Your task to perform on an android device: uninstall "Google Keep" Image 0: 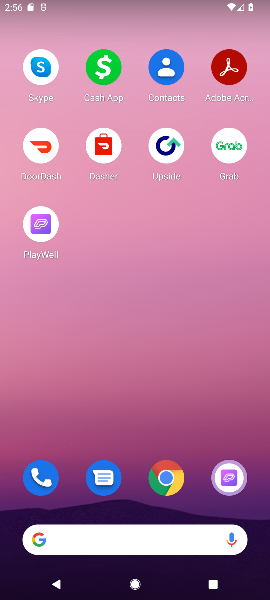
Step 0: press home button
Your task to perform on an android device: uninstall "Google Keep" Image 1: 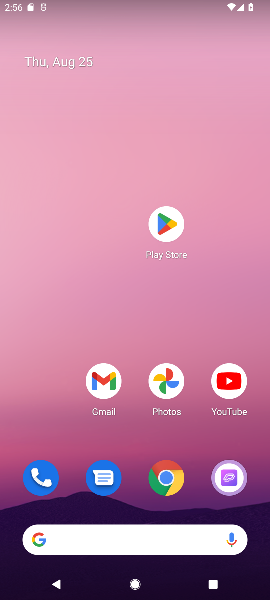
Step 1: click (165, 218)
Your task to perform on an android device: uninstall "Google Keep" Image 2: 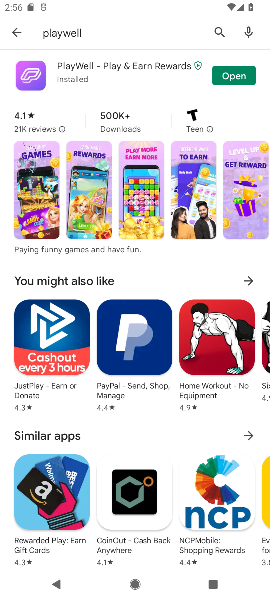
Step 2: click (218, 30)
Your task to perform on an android device: uninstall "Google Keep" Image 3: 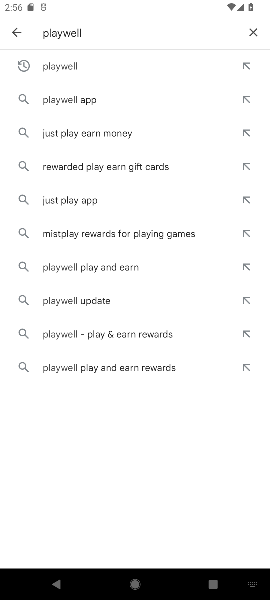
Step 3: click (252, 28)
Your task to perform on an android device: uninstall "Google Keep" Image 4: 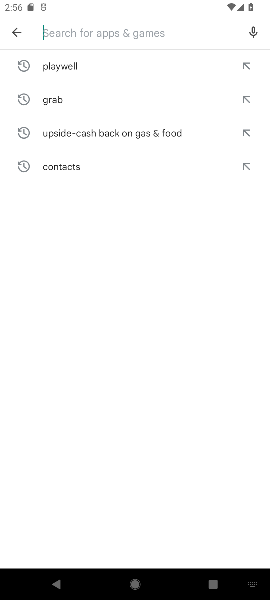
Step 4: type "Google Keep"
Your task to perform on an android device: uninstall "Google Keep" Image 5: 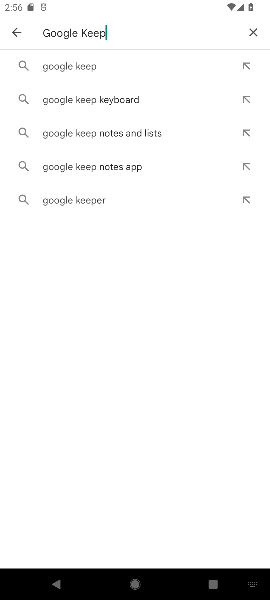
Step 5: click (88, 63)
Your task to perform on an android device: uninstall "Google Keep" Image 6: 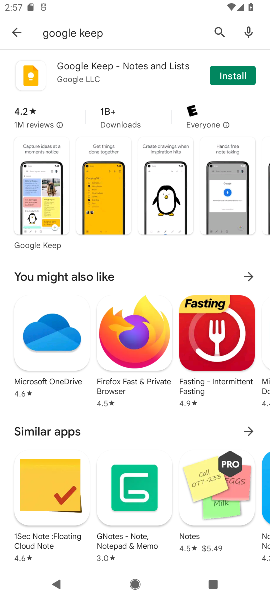
Step 6: task complete